Your task to perform on an android device: Open sound settings Image 0: 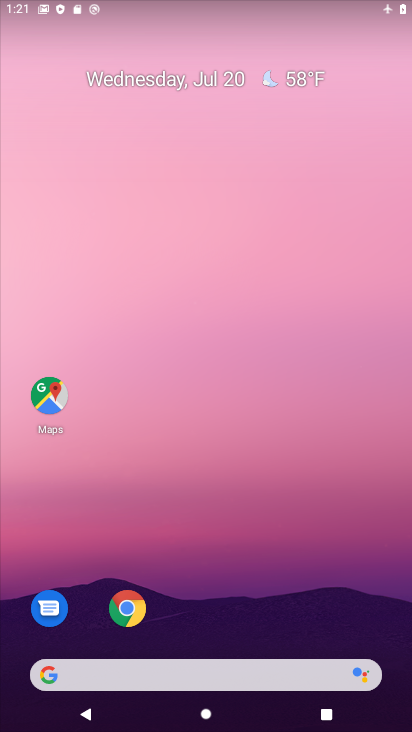
Step 0: drag from (234, 728) to (255, 233)
Your task to perform on an android device: Open sound settings Image 1: 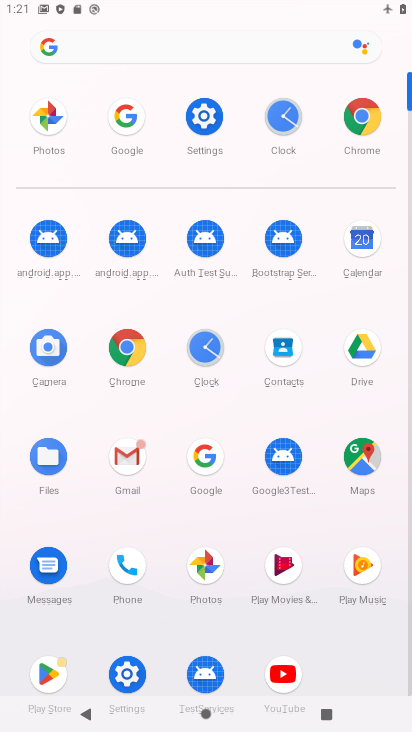
Step 1: click (199, 120)
Your task to perform on an android device: Open sound settings Image 2: 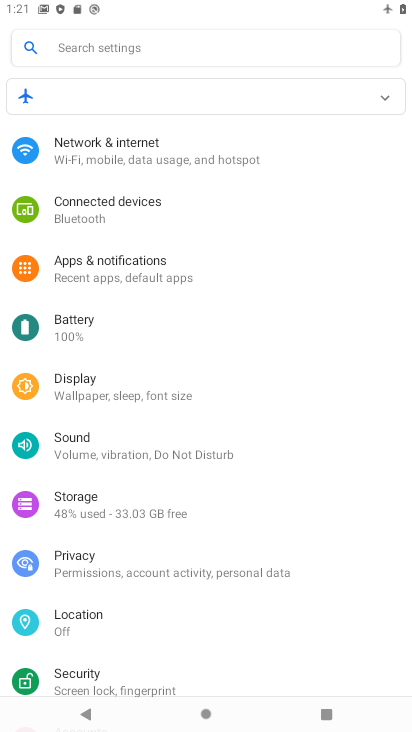
Step 2: task complete